Your task to perform on an android device: add a contact Image 0: 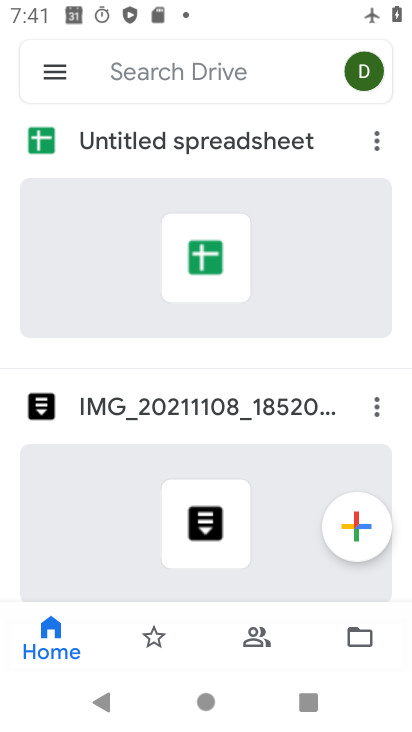
Step 0: press home button
Your task to perform on an android device: add a contact Image 1: 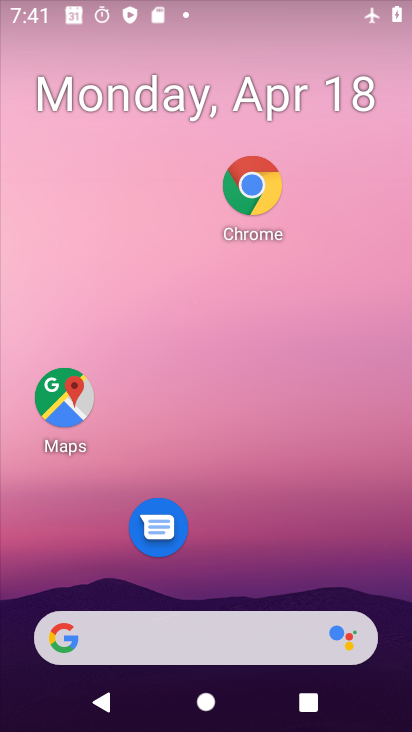
Step 1: drag from (235, 543) to (249, 110)
Your task to perform on an android device: add a contact Image 2: 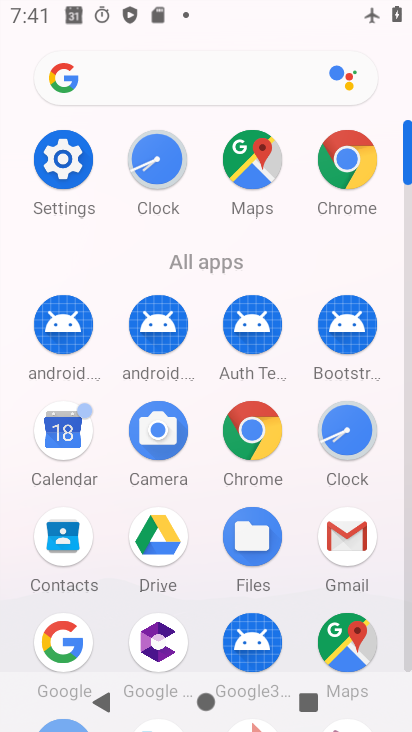
Step 2: drag from (213, 608) to (327, 169)
Your task to perform on an android device: add a contact Image 3: 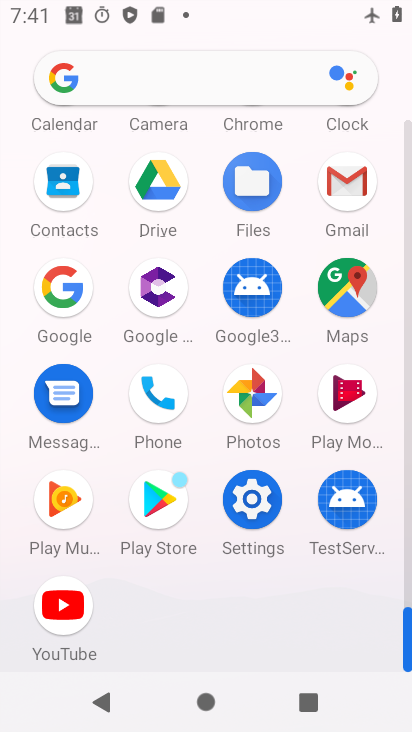
Step 3: click (154, 393)
Your task to perform on an android device: add a contact Image 4: 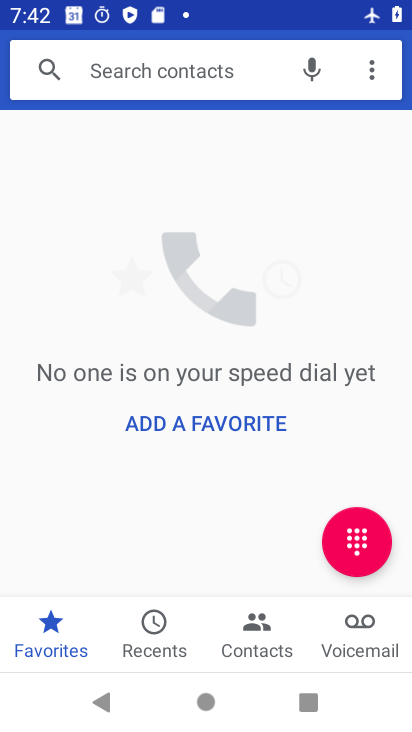
Step 4: click (217, 419)
Your task to perform on an android device: add a contact Image 5: 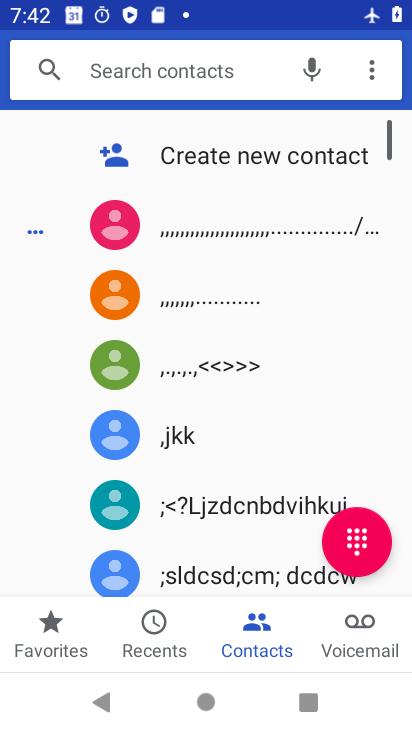
Step 5: click (232, 153)
Your task to perform on an android device: add a contact Image 6: 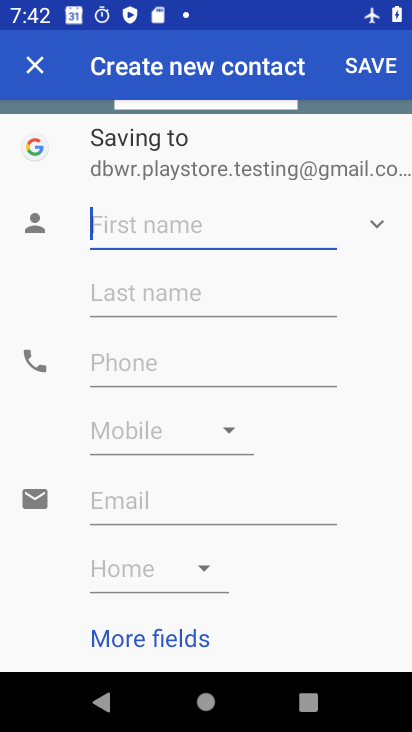
Step 6: click (181, 220)
Your task to perform on an android device: add a contact Image 7: 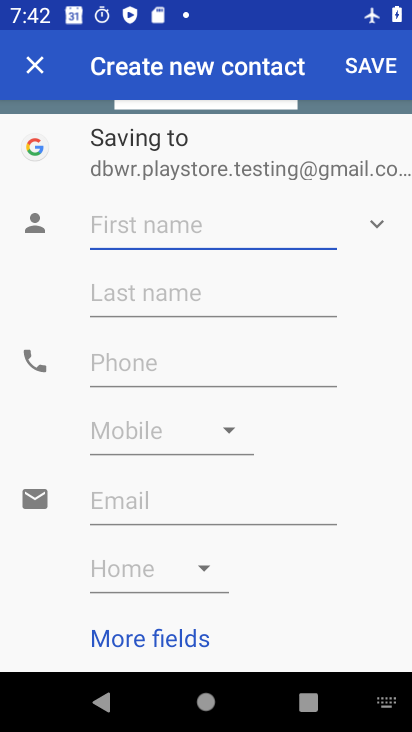
Step 7: type "oooooooooooooooo"
Your task to perform on an android device: add a contact Image 8: 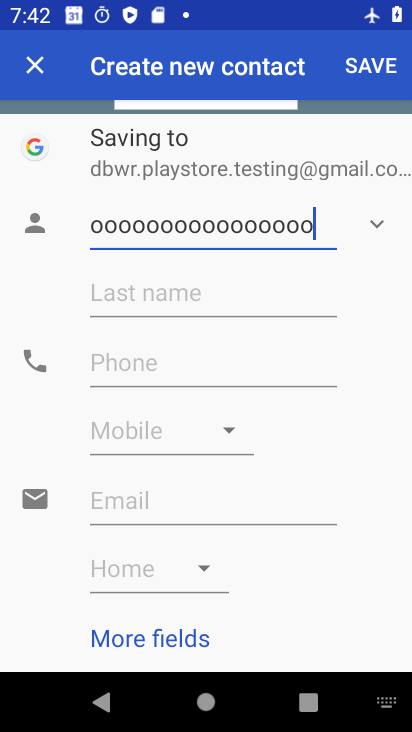
Step 8: click (179, 364)
Your task to perform on an android device: add a contact Image 9: 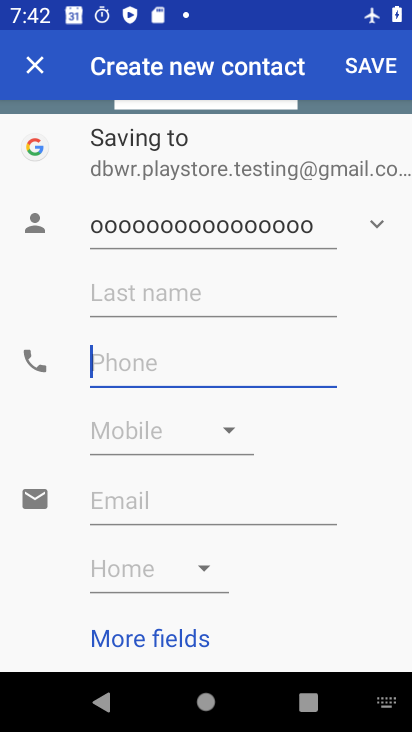
Step 9: type "0987654321"
Your task to perform on an android device: add a contact Image 10: 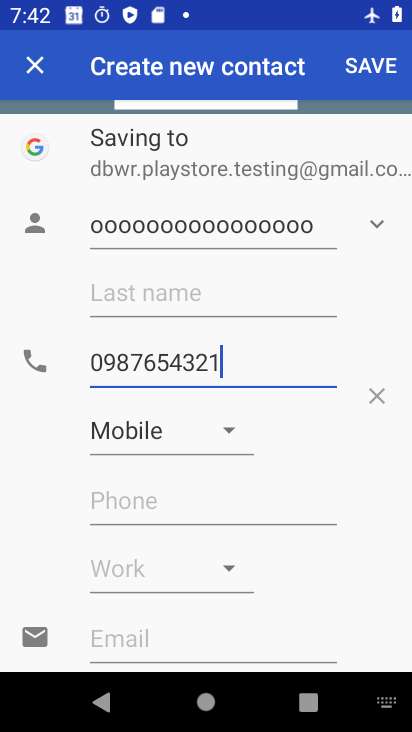
Step 10: drag from (198, 551) to (274, 134)
Your task to perform on an android device: add a contact Image 11: 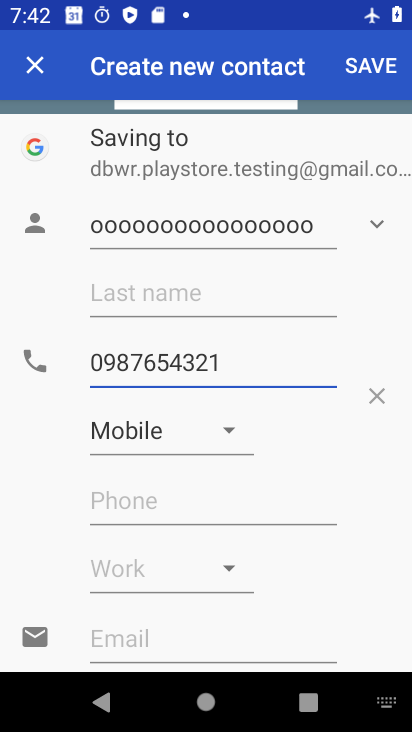
Step 11: click (151, 250)
Your task to perform on an android device: add a contact Image 12: 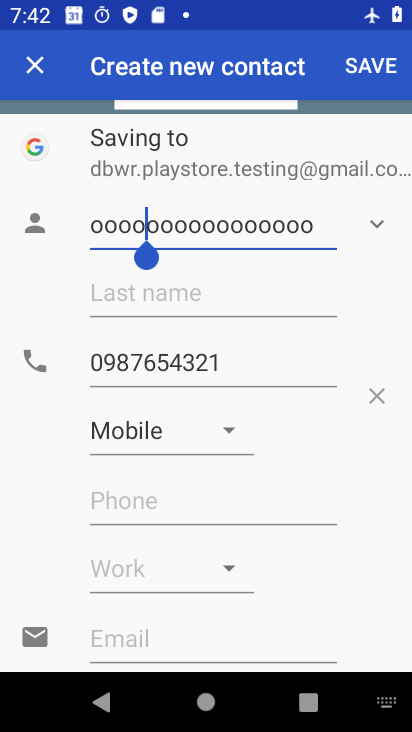
Step 12: click (310, 214)
Your task to perform on an android device: add a contact Image 13: 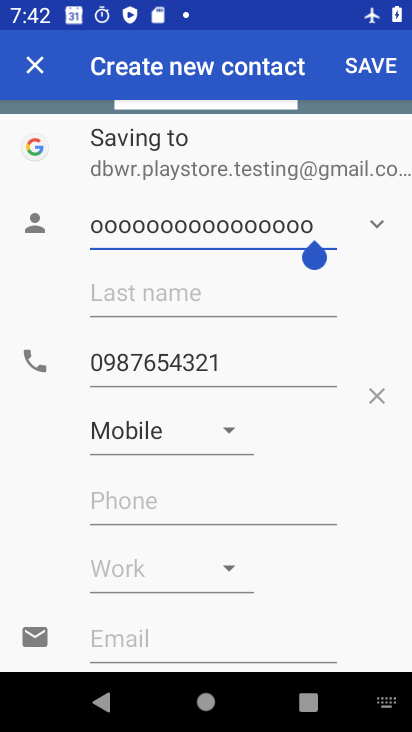
Step 13: click (327, 231)
Your task to perform on an android device: add a contact Image 14: 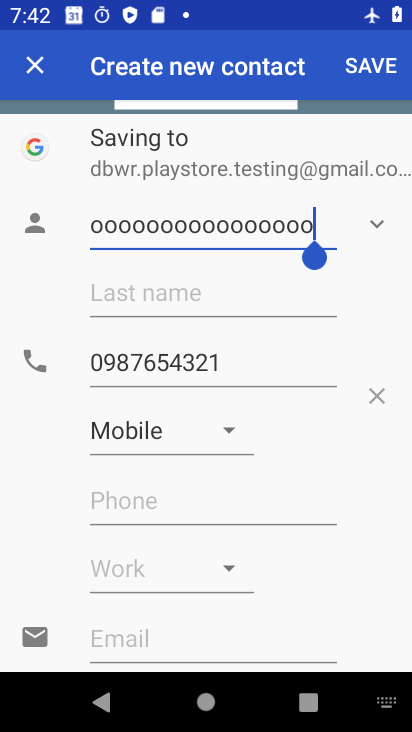
Step 14: click (380, 59)
Your task to perform on an android device: add a contact Image 15: 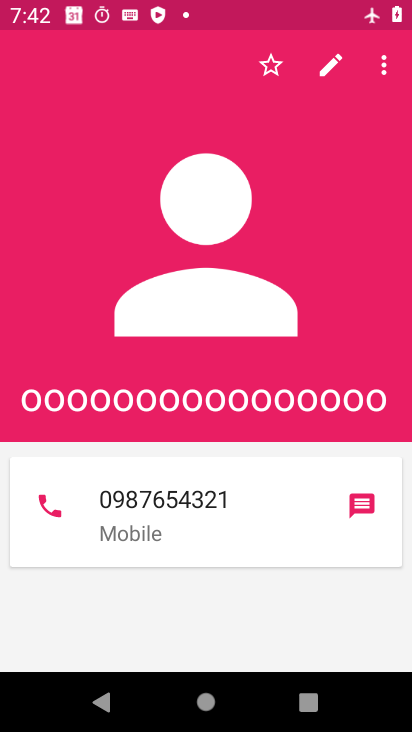
Step 15: task complete